Your task to perform on an android device: turn off wifi Image 0: 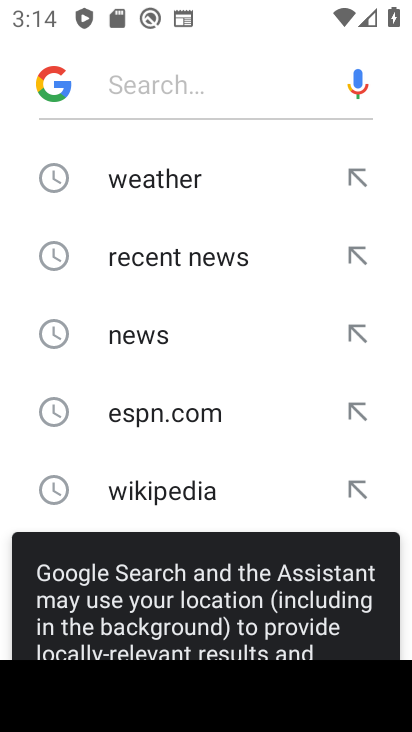
Step 0: press back button
Your task to perform on an android device: turn off wifi Image 1: 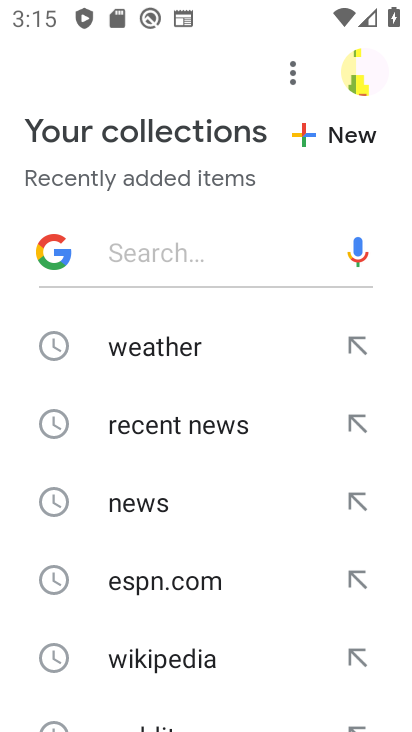
Step 1: press back button
Your task to perform on an android device: turn off wifi Image 2: 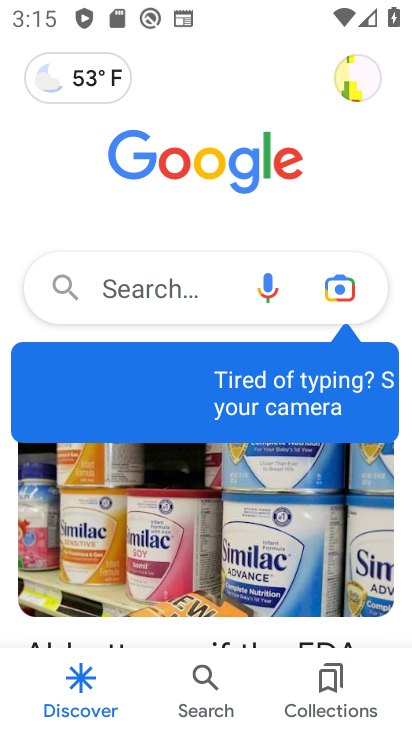
Step 2: press back button
Your task to perform on an android device: turn off wifi Image 3: 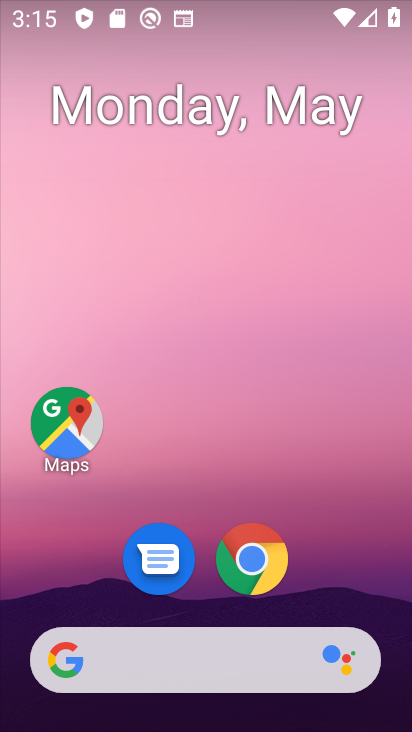
Step 3: drag from (309, 539) to (242, 3)
Your task to perform on an android device: turn off wifi Image 4: 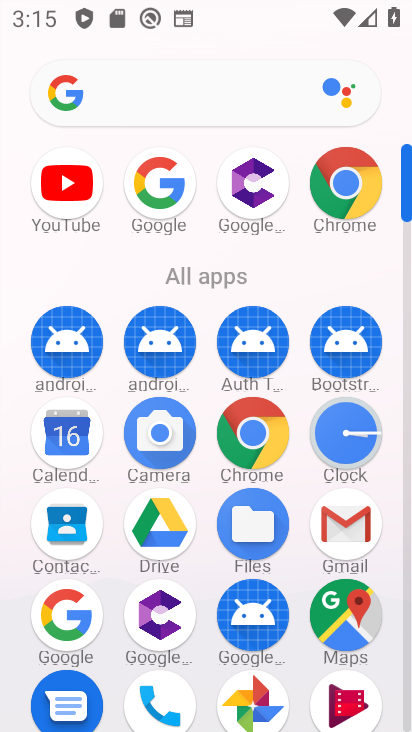
Step 4: drag from (3, 527) to (26, 208)
Your task to perform on an android device: turn off wifi Image 5: 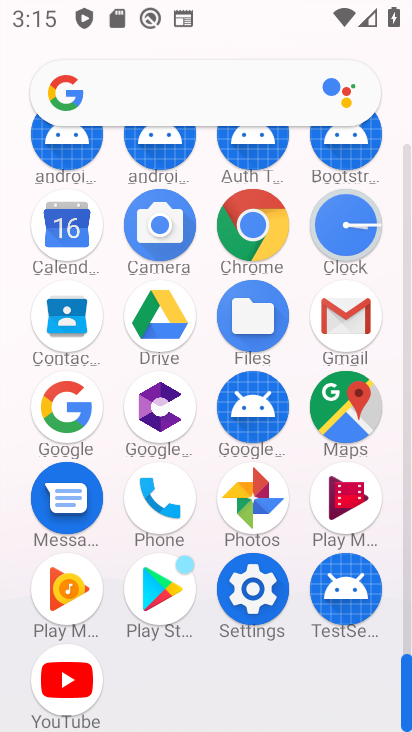
Step 5: click (249, 587)
Your task to perform on an android device: turn off wifi Image 6: 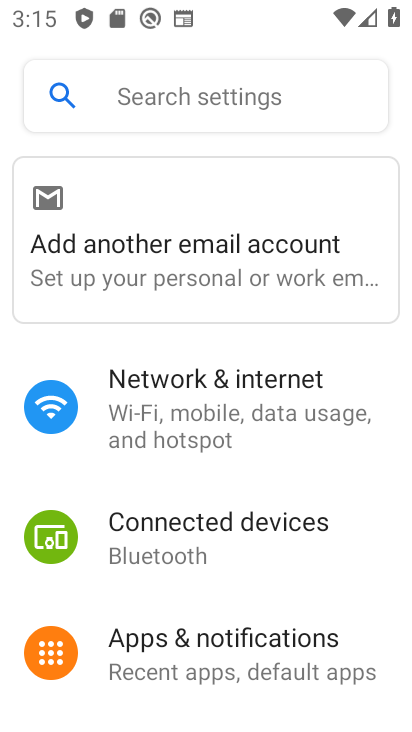
Step 6: click (209, 409)
Your task to perform on an android device: turn off wifi Image 7: 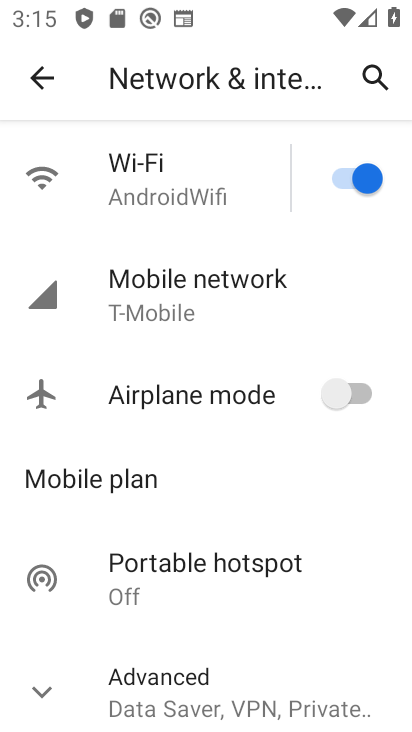
Step 7: click (349, 185)
Your task to perform on an android device: turn off wifi Image 8: 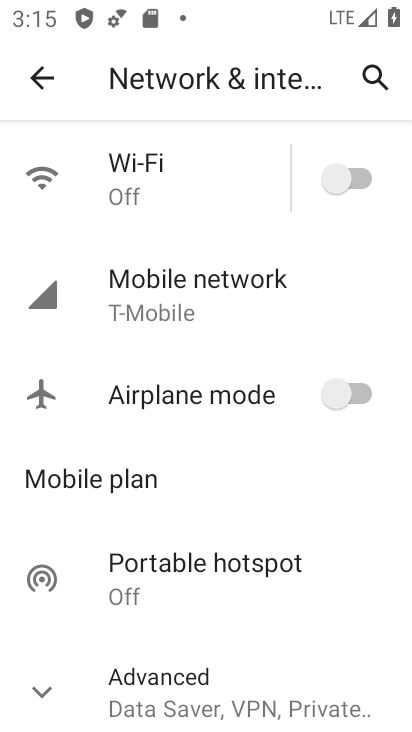
Step 8: task complete